Your task to perform on an android device: change notifications settings Image 0: 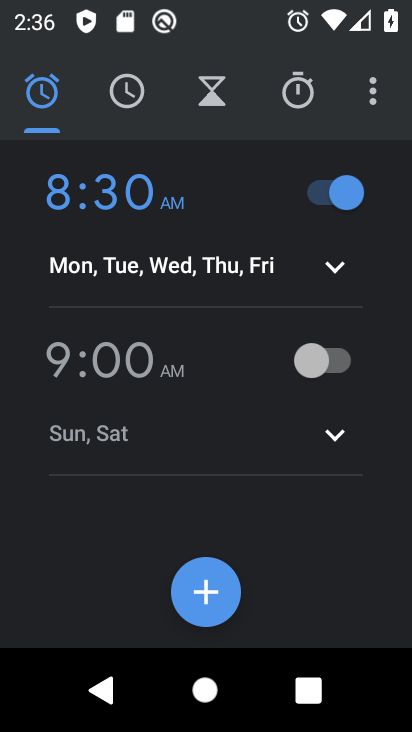
Step 0: press home button
Your task to perform on an android device: change notifications settings Image 1: 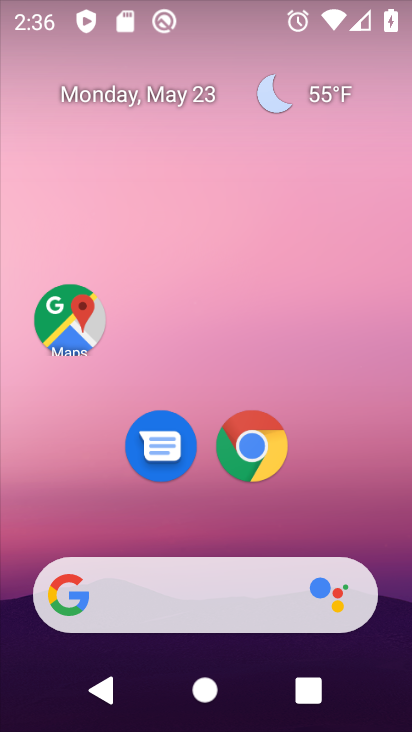
Step 1: drag from (222, 524) to (160, 197)
Your task to perform on an android device: change notifications settings Image 2: 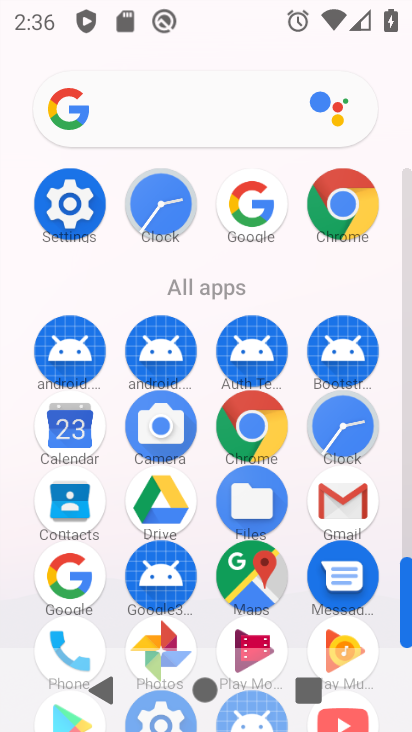
Step 2: click (54, 204)
Your task to perform on an android device: change notifications settings Image 3: 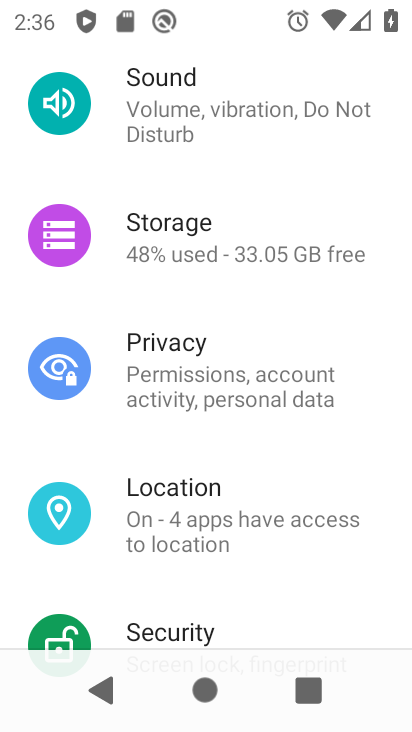
Step 3: drag from (195, 154) to (205, 442)
Your task to perform on an android device: change notifications settings Image 4: 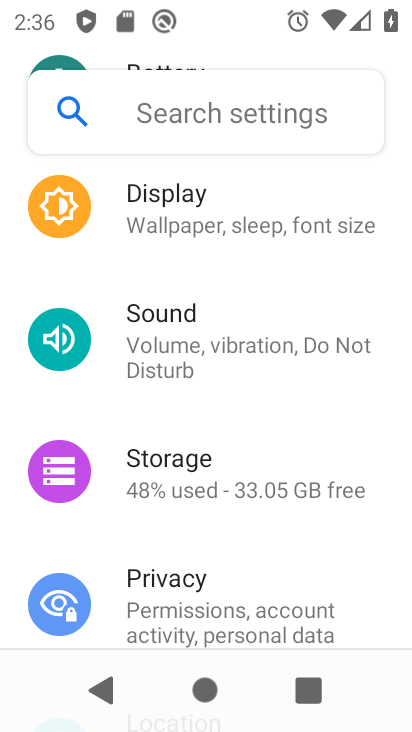
Step 4: drag from (223, 190) to (226, 446)
Your task to perform on an android device: change notifications settings Image 5: 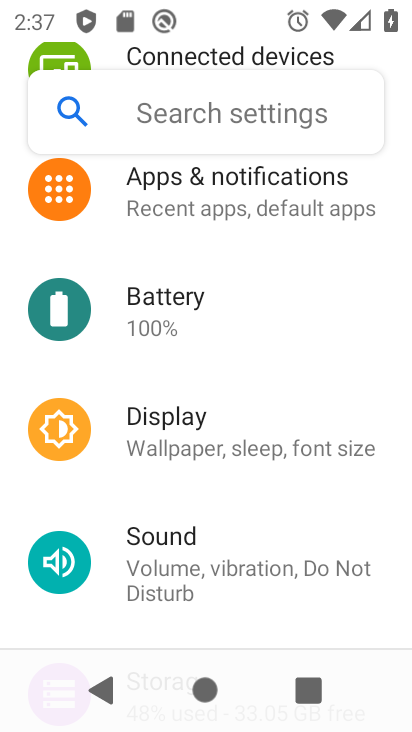
Step 5: click (212, 195)
Your task to perform on an android device: change notifications settings Image 6: 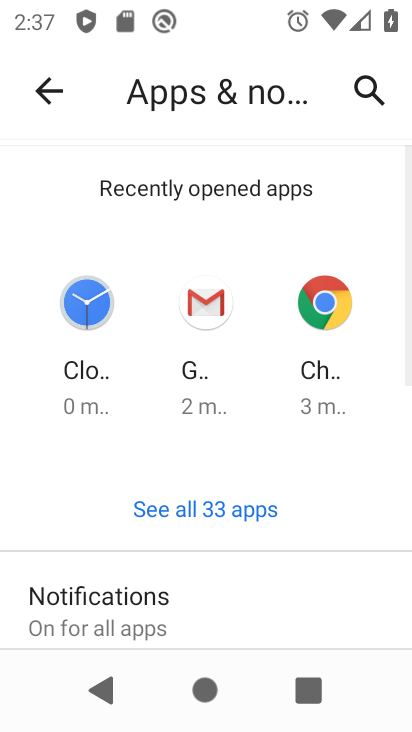
Step 6: click (174, 597)
Your task to perform on an android device: change notifications settings Image 7: 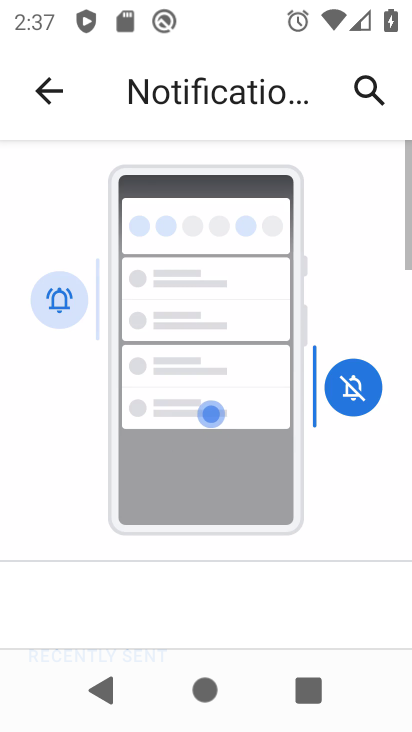
Step 7: drag from (200, 579) to (211, 228)
Your task to perform on an android device: change notifications settings Image 8: 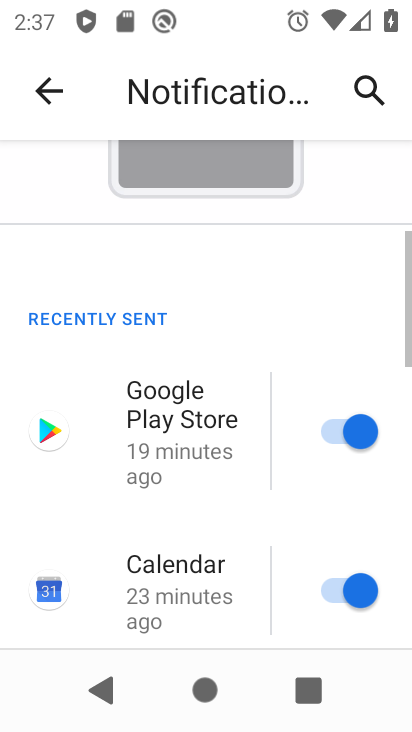
Step 8: drag from (204, 520) to (219, 215)
Your task to perform on an android device: change notifications settings Image 9: 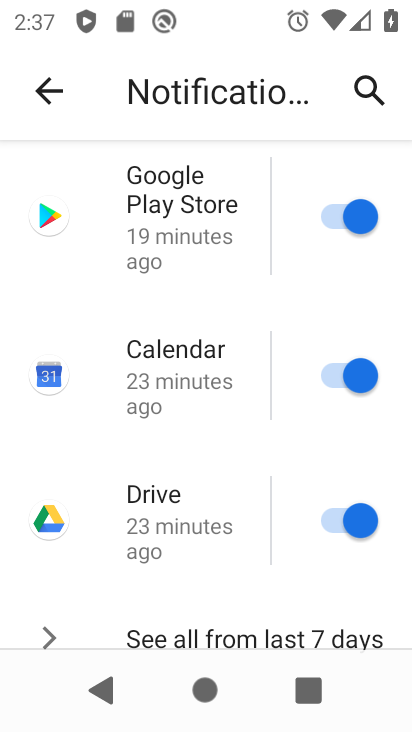
Step 9: drag from (314, 506) to (294, 187)
Your task to perform on an android device: change notifications settings Image 10: 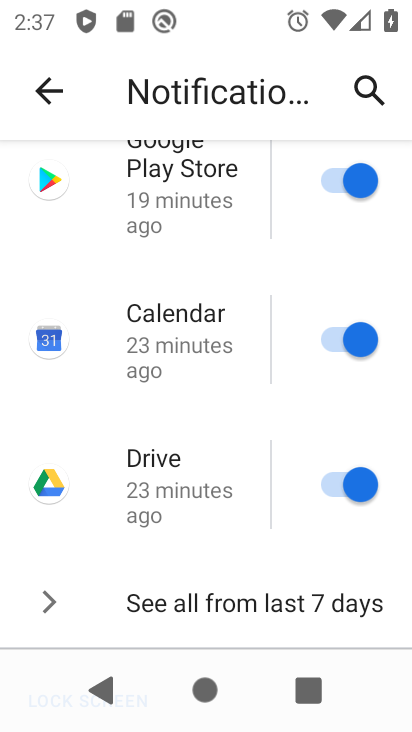
Step 10: drag from (224, 570) to (230, 201)
Your task to perform on an android device: change notifications settings Image 11: 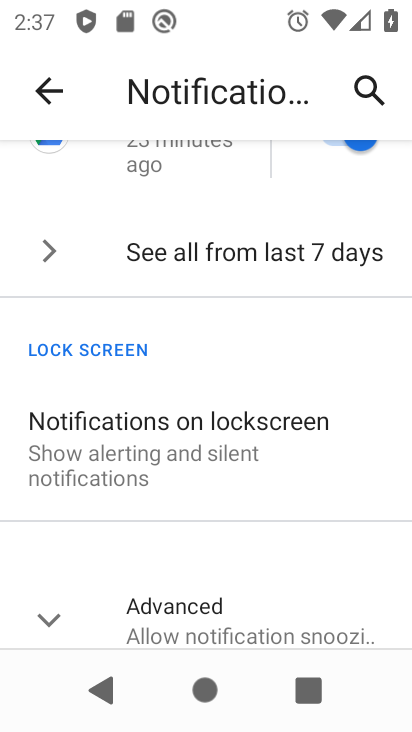
Step 11: click (188, 448)
Your task to perform on an android device: change notifications settings Image 12: 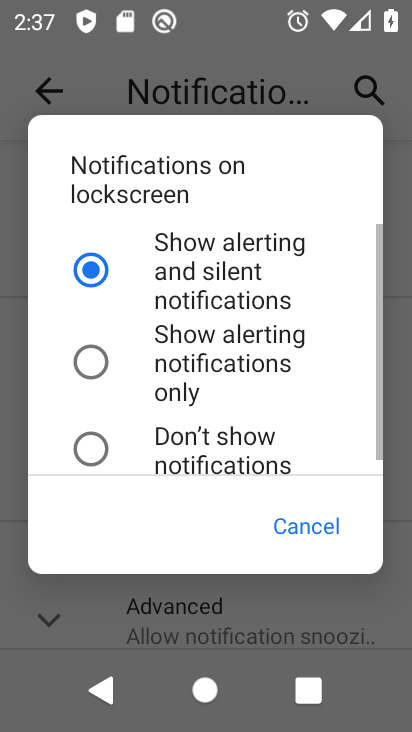
Step 12: click (205, 453)
Your task to perform on an android device: change notifications settings Image 13: 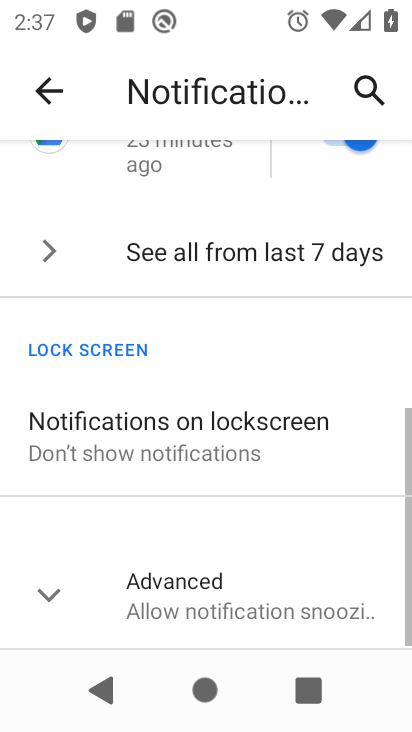
Step 13: task complete